Your task to perform on an android device: clear all cookies in the chrome app Image 0: 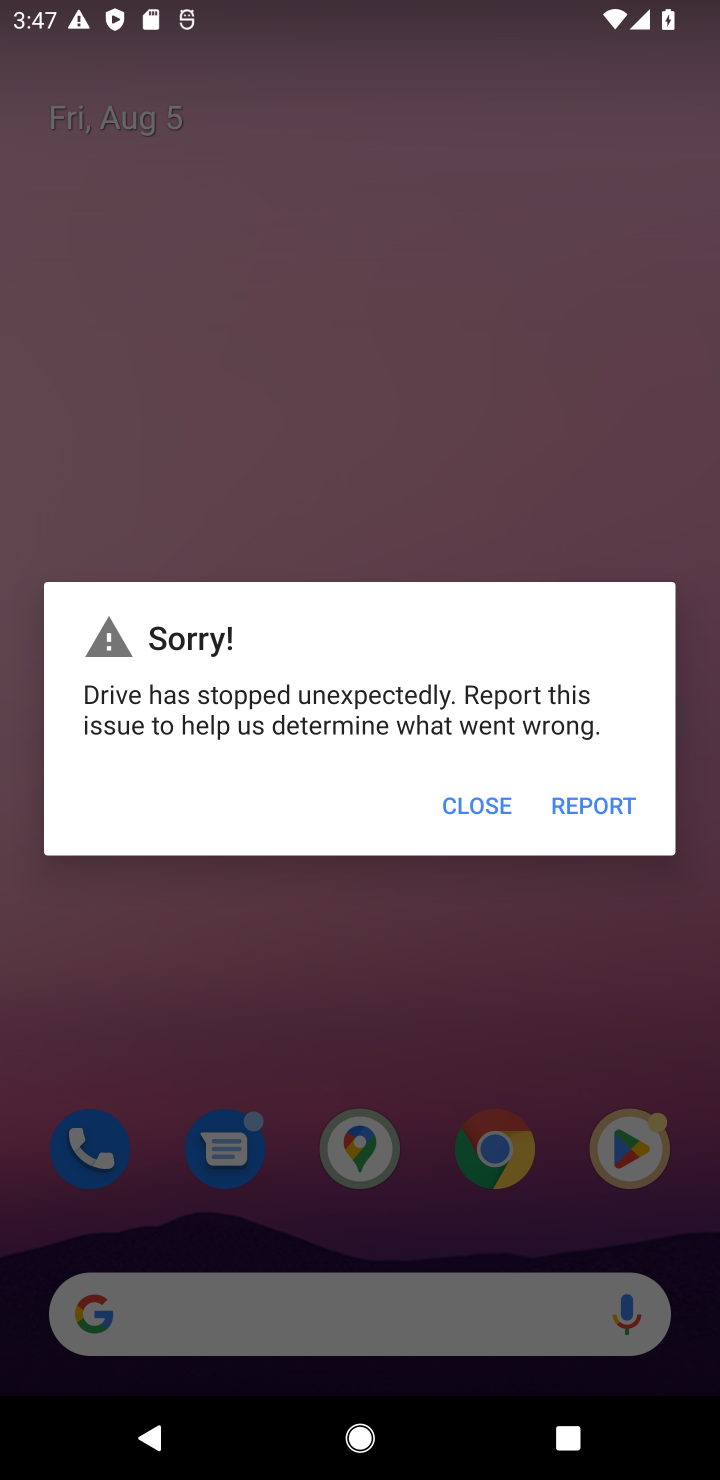
Step 0: click (453, 816)
Your task to perform on an android device: clear all cookies in the chrome app Image 1: 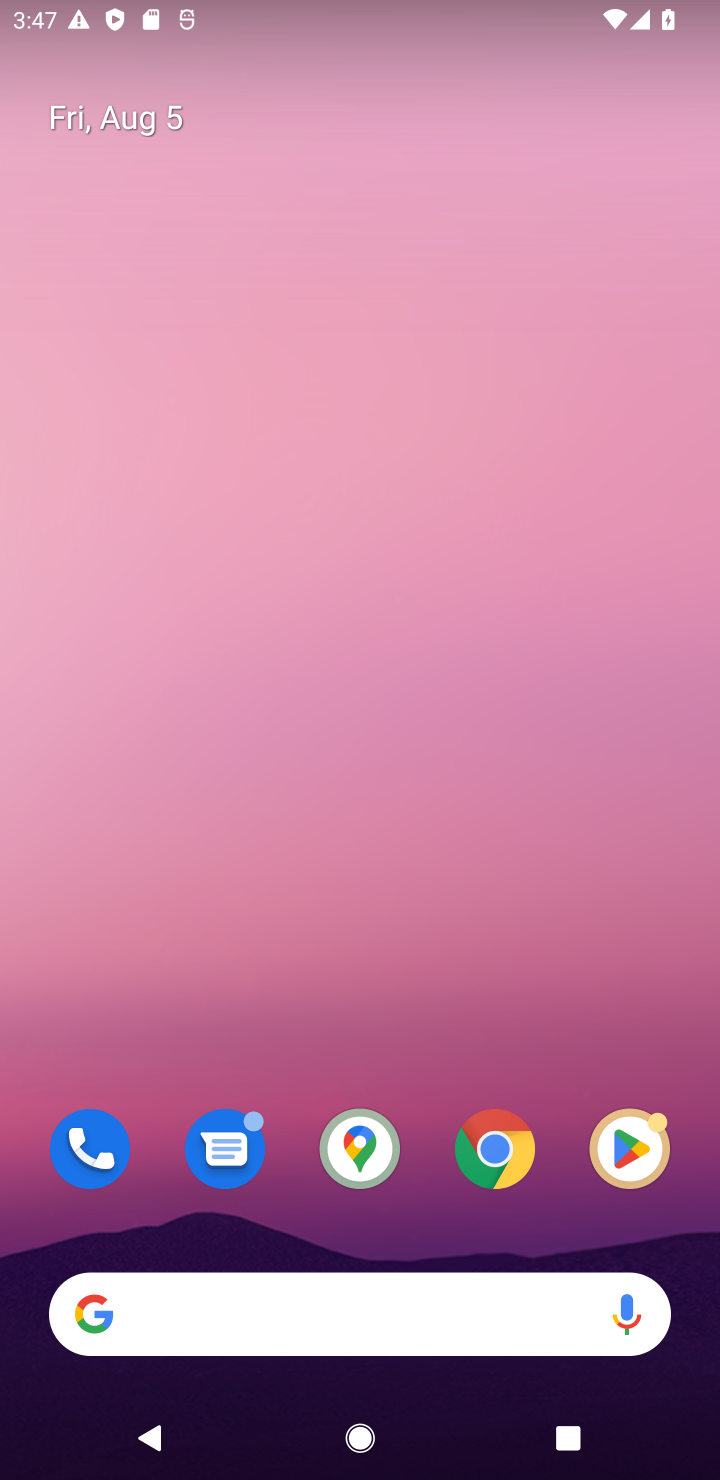
Step 1: click (489, 1143)
Your task to perform on an android device: clear all cookies in the chrome app Image 2: 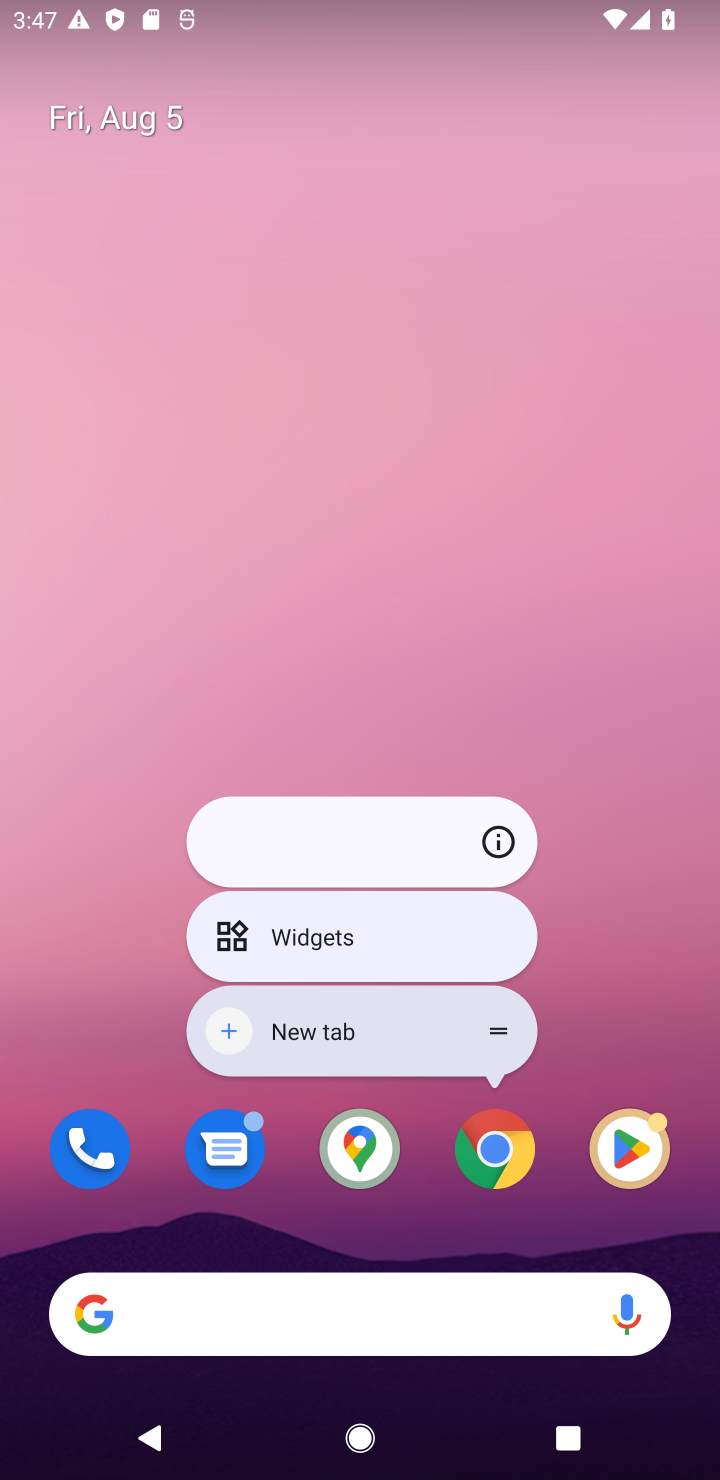
Step 2: click (503, 1165)
Your task to perform on an android device: clear all cookies in the chrome app Image 3: 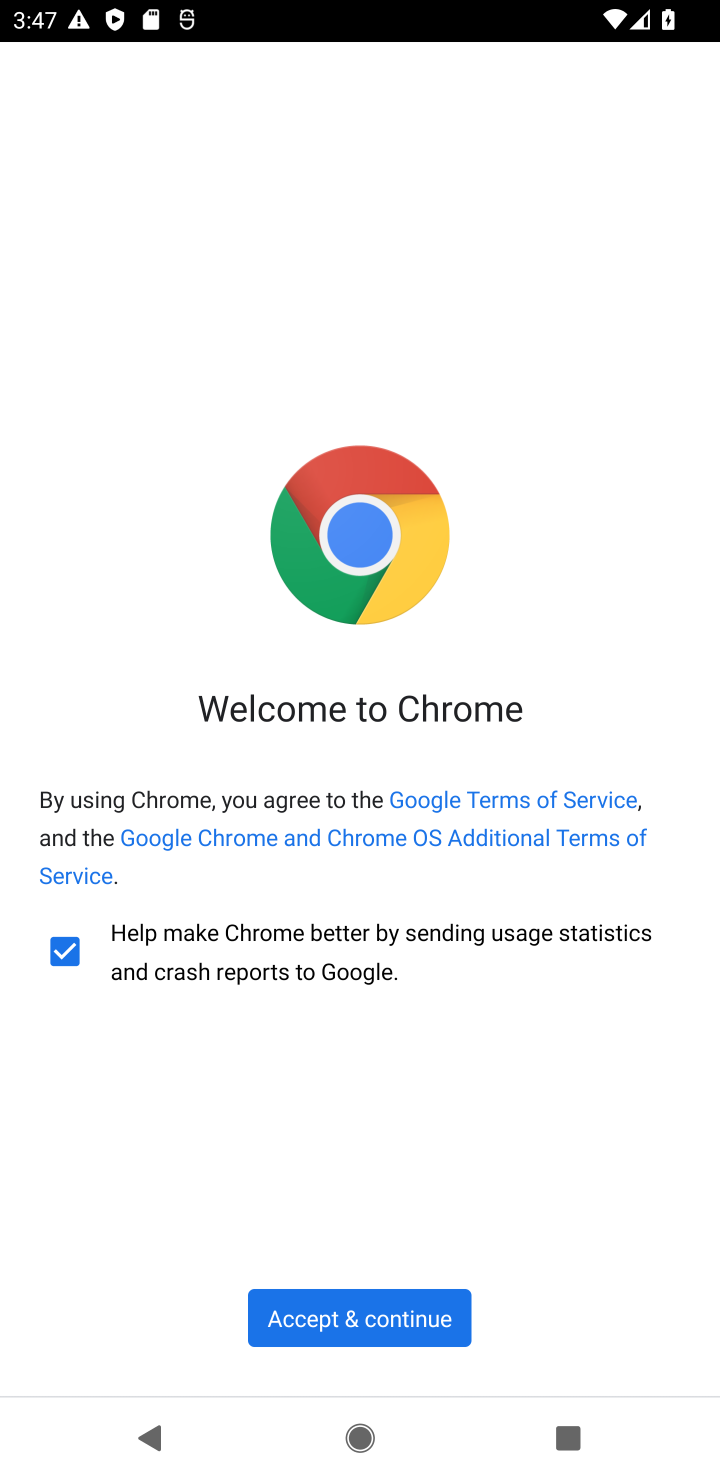
Step 3: click (402, 1298)
Your task to perform on an android device: clear all cookies in the chrome app Image 4: 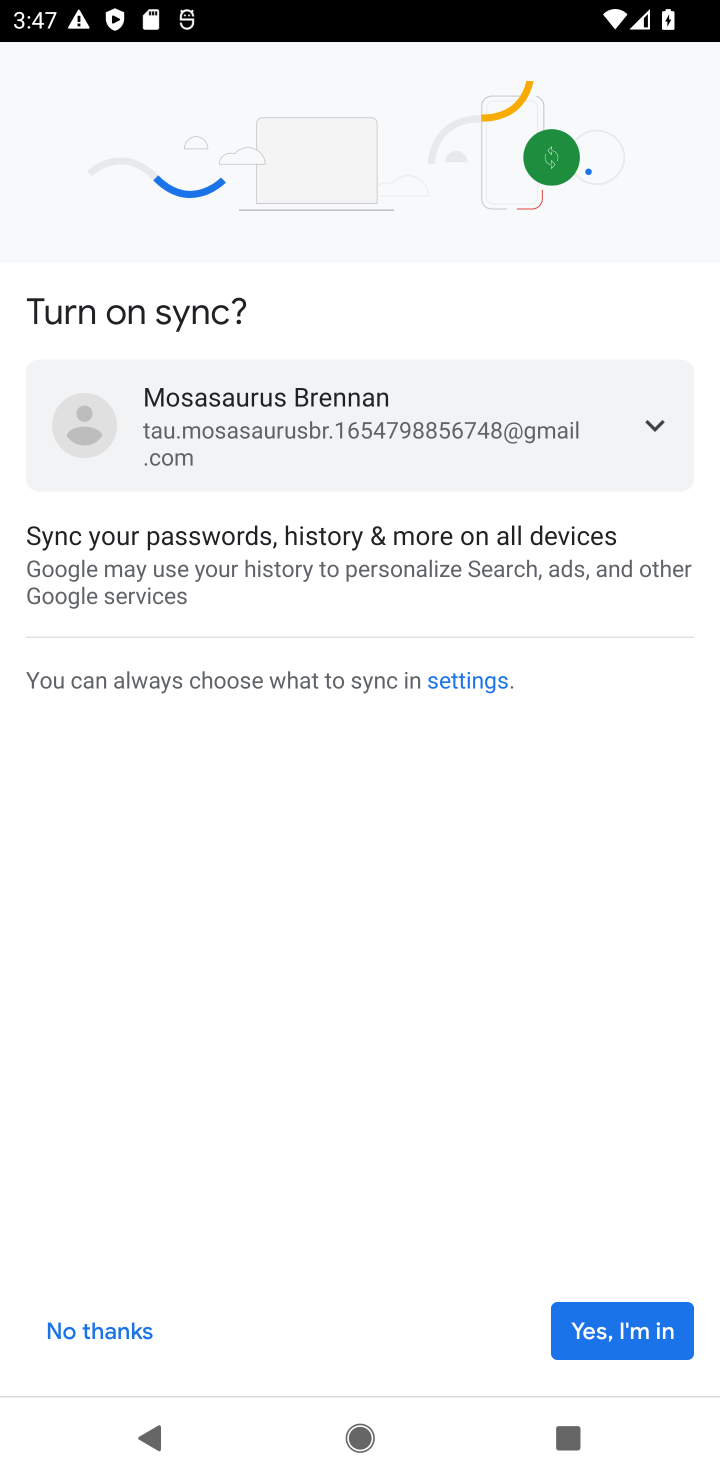
Step 4: click (634, 1312)
Your task to perform on an android device: clear all cookies in the chrome app Image 5: 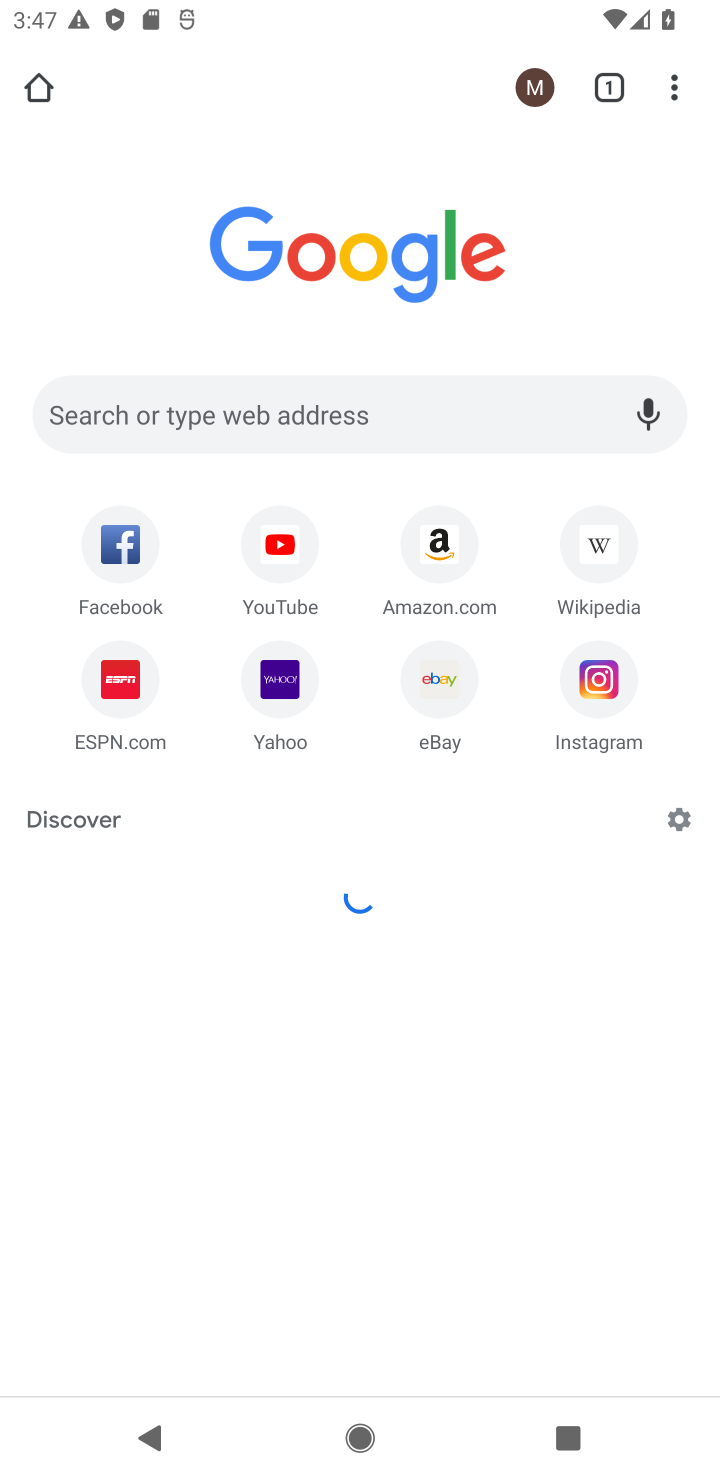
Step 5: task complete